Your task to perform on an android device: open app "Yahoo Mail" Image 0: 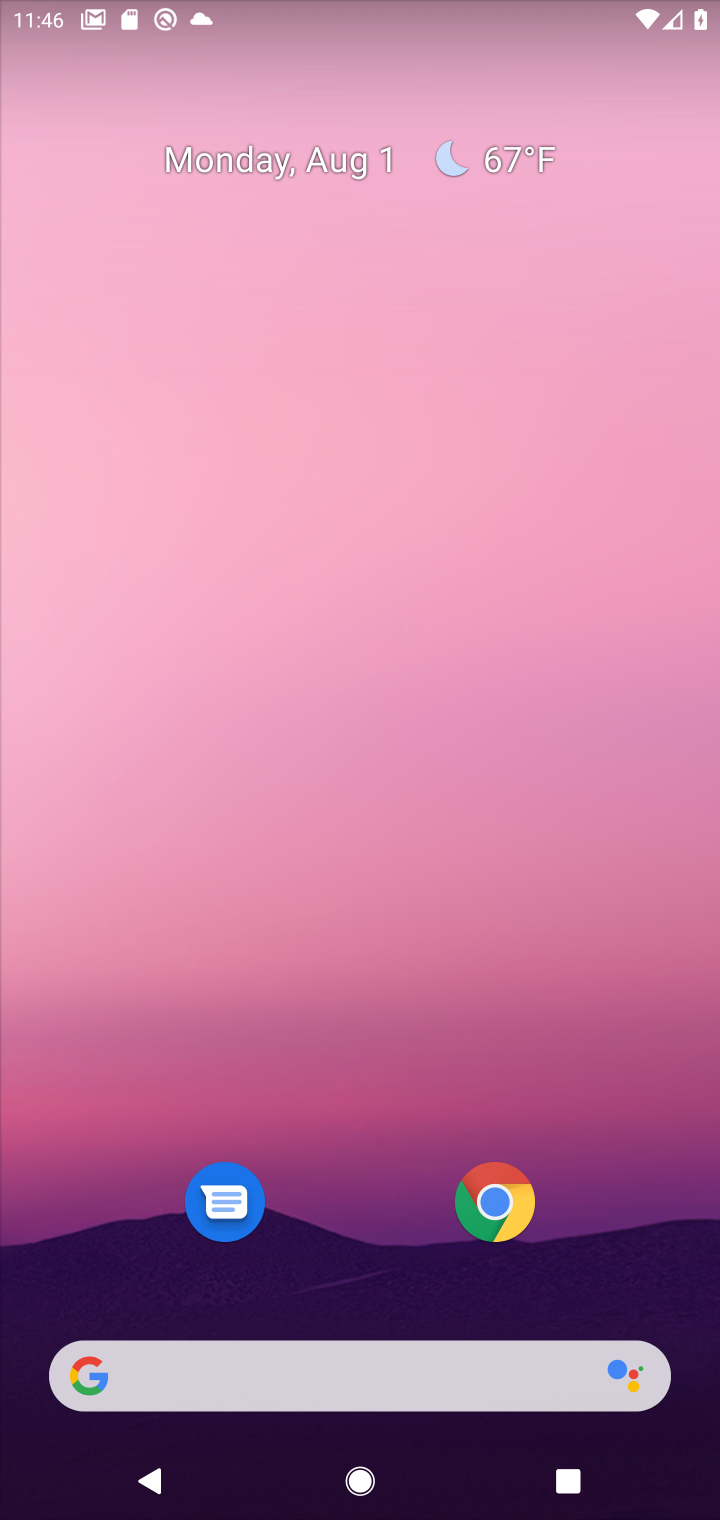
Step 0: drag from (312, 437) to (251, 88)
Your task to perform on an android device: open app "Yahoo Mail" Image 1: 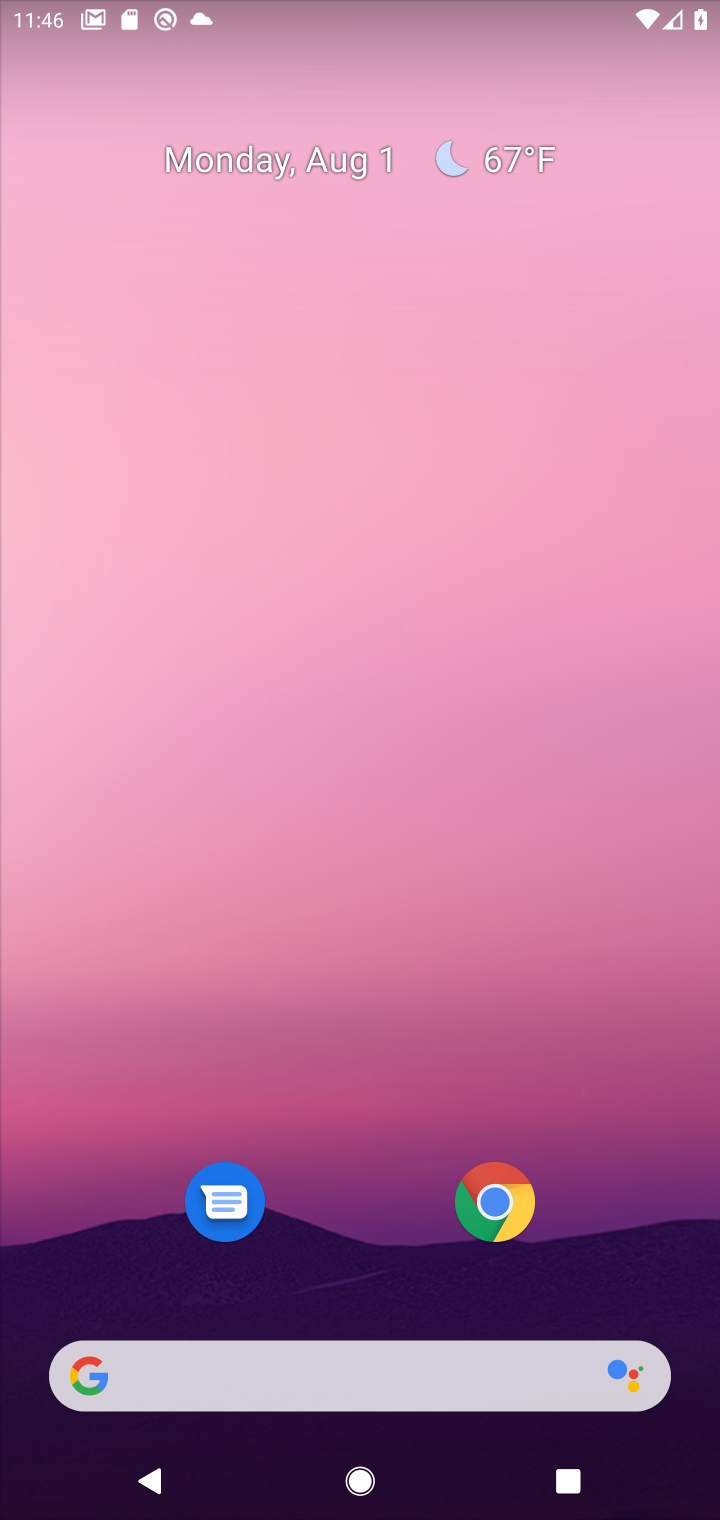
Step 1: drag from (304, 585) to (307, 281)
Your task to perform on an android device: open app "Yahoo Mail" Image 2: 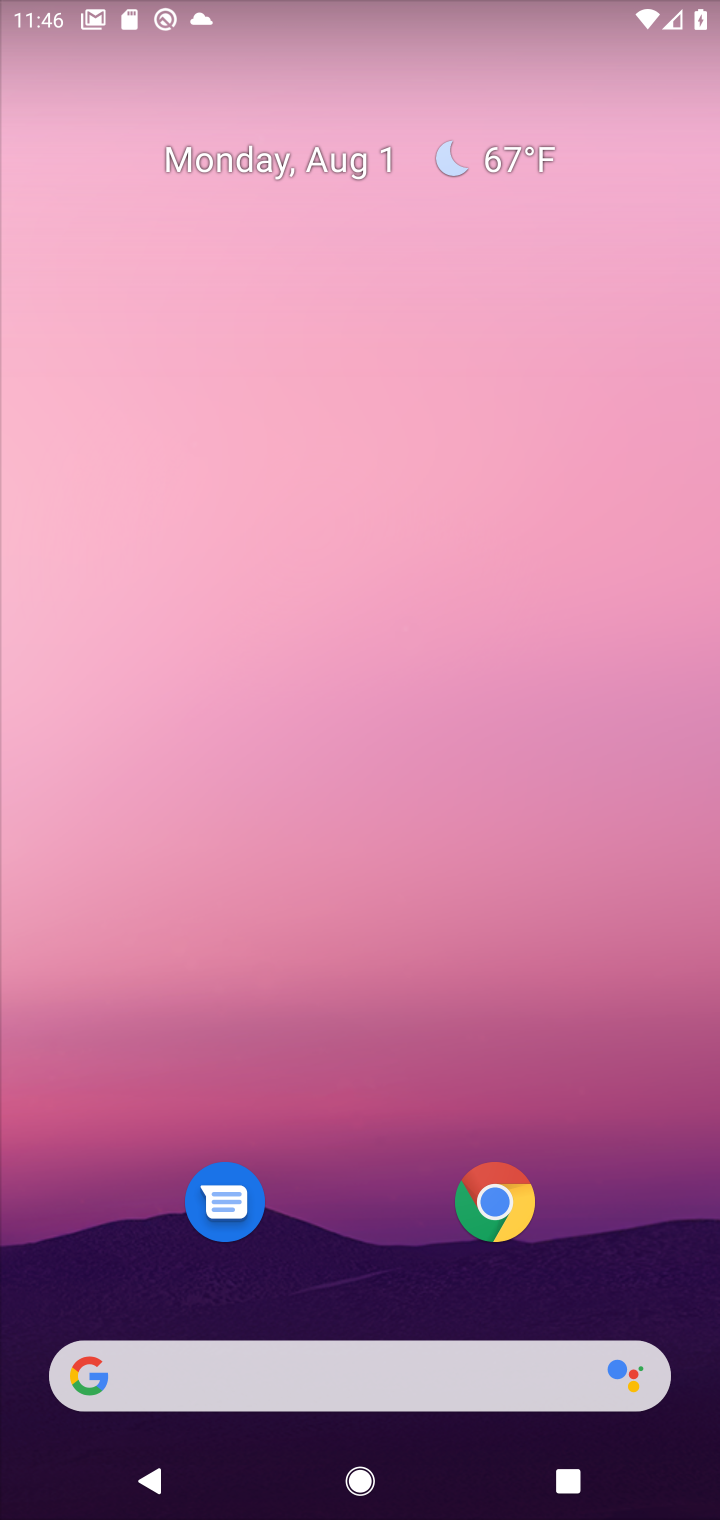
Step 2: drag from (315, 1224) to (342, 0)
Your task to perform on an android device: open app "Yahoo Mail" Image 3: 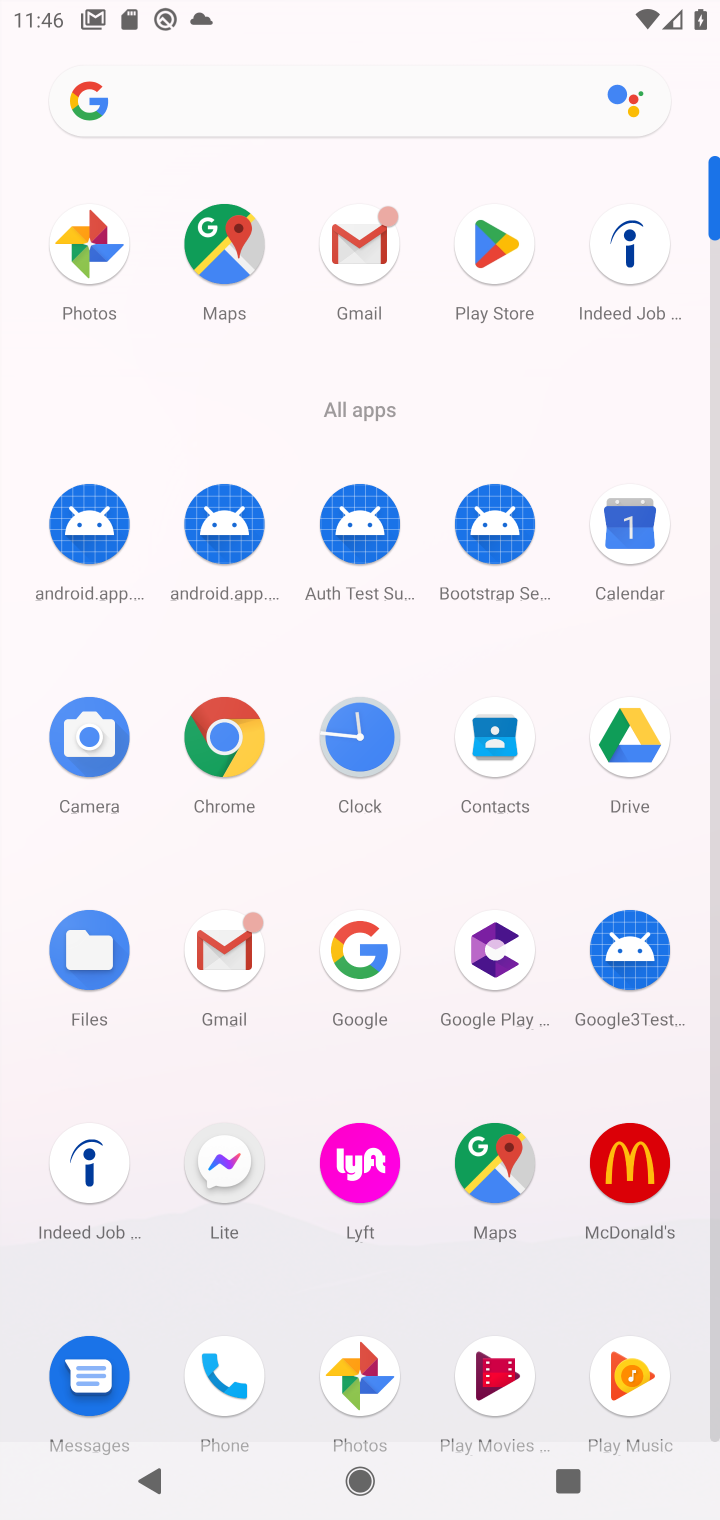
Step 3: drag from (476, 791) to (476, 722)
Your task to perform on an android device: open app "Yahoo Mail" Image 4: 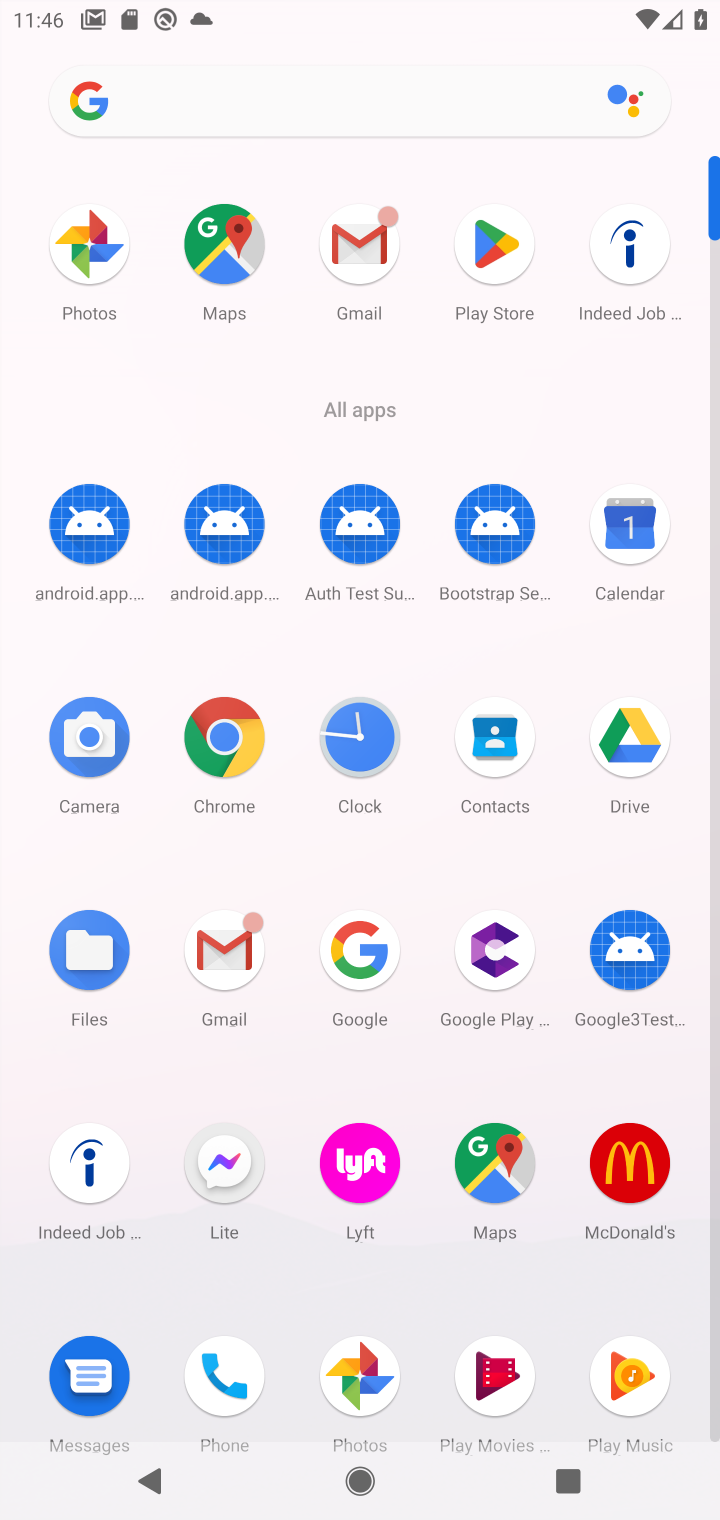
Step 4: drag from (387, 1152) to (488, 687)
Your task to perform on an android device: open app "Yahoo Mail" Image 5: 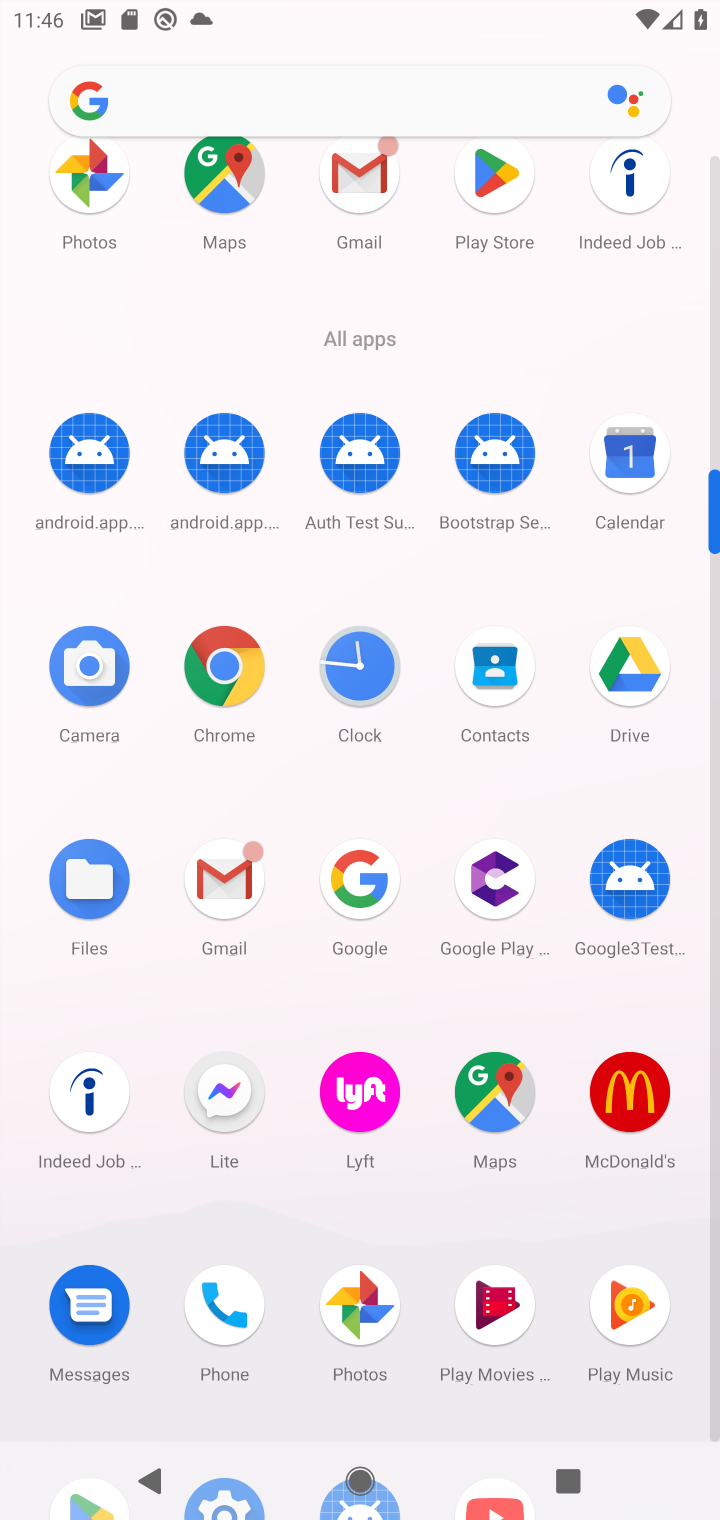
Step 5: drag from (453, 689) to (539, 364)
Your task to perform on an android device: open app "Yahoo Mail" Image 6: 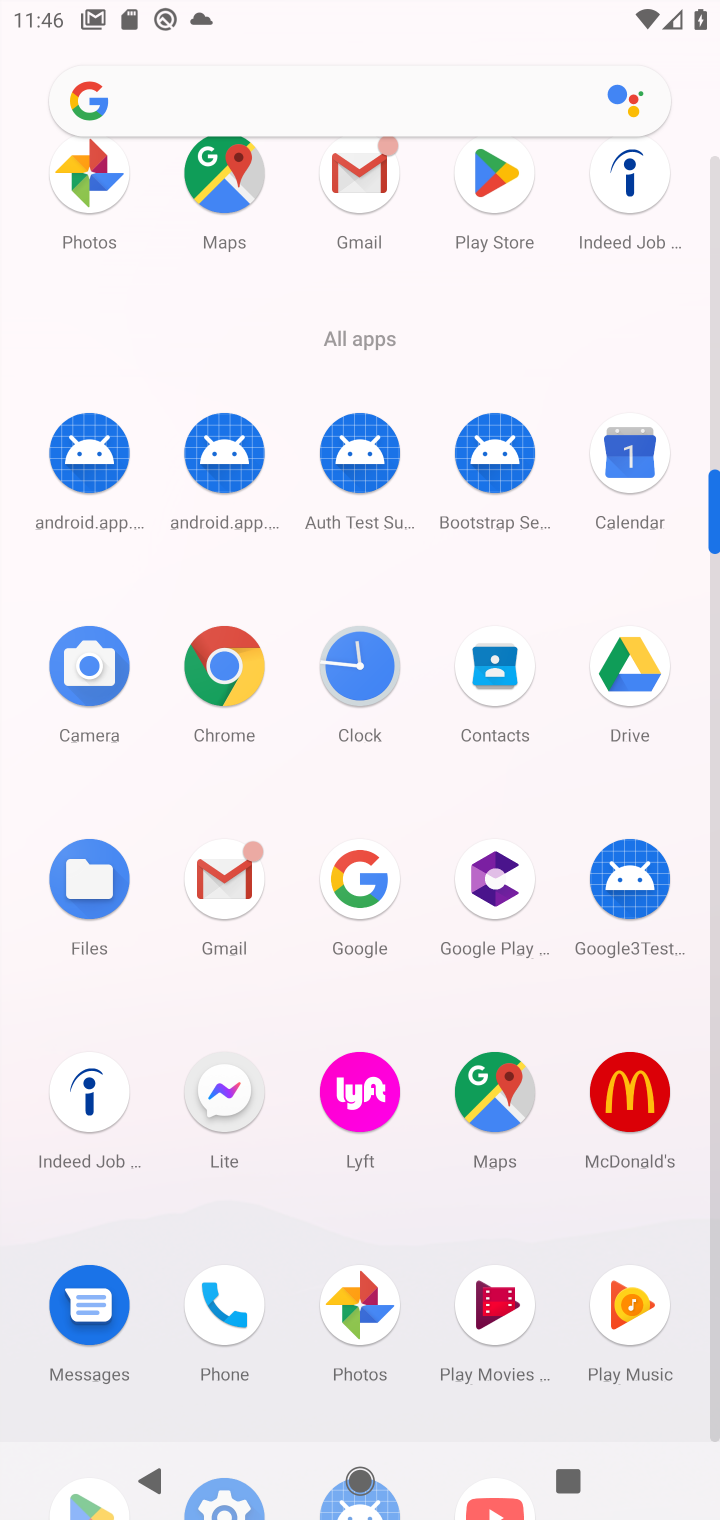
Step 6: drag from (256, 1134) to (356, 542)
Your task to perform on an android device: open app "Yahoo Mail" Image 7: 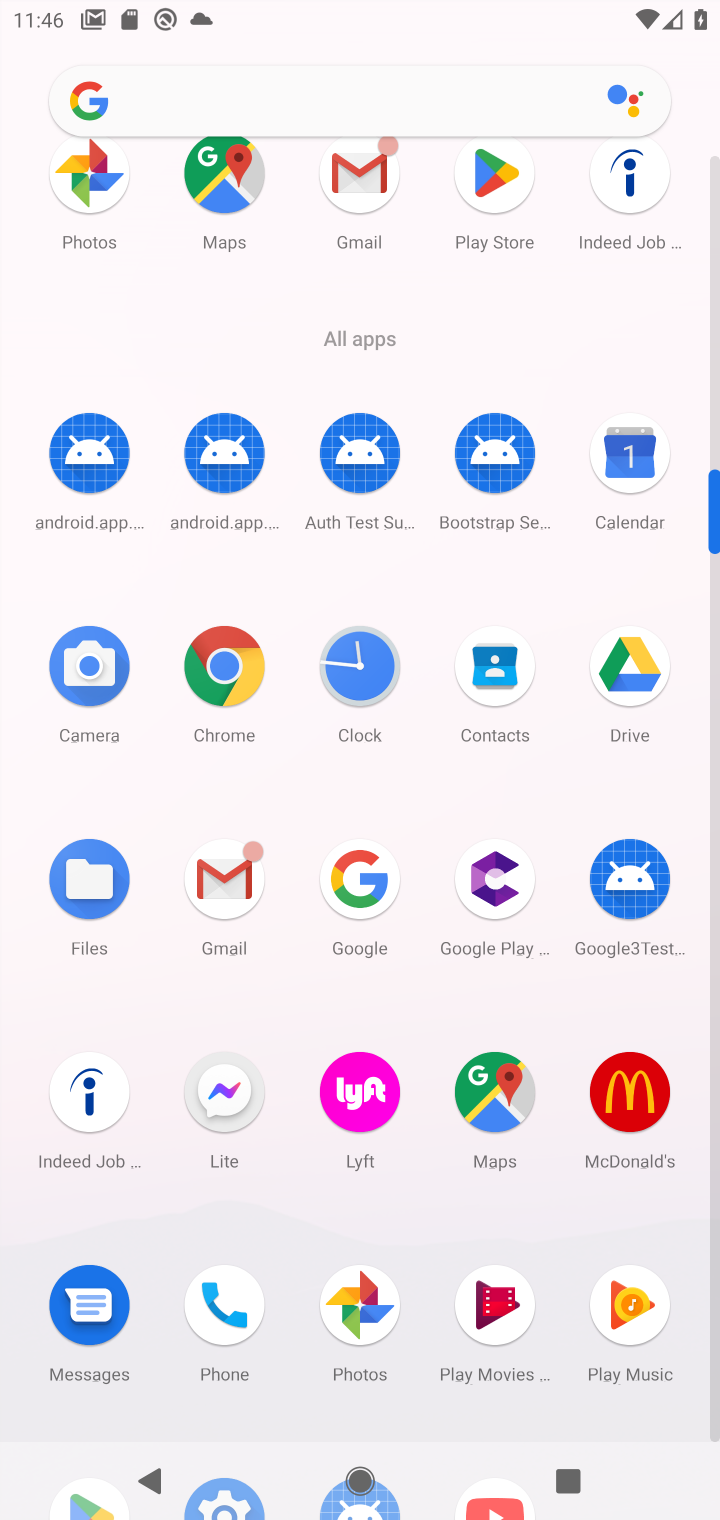
Step 7: drag from (317, 754) to (338, 606)
Your task to perform on an android device: open app "Yahoo Mail" Image 8: 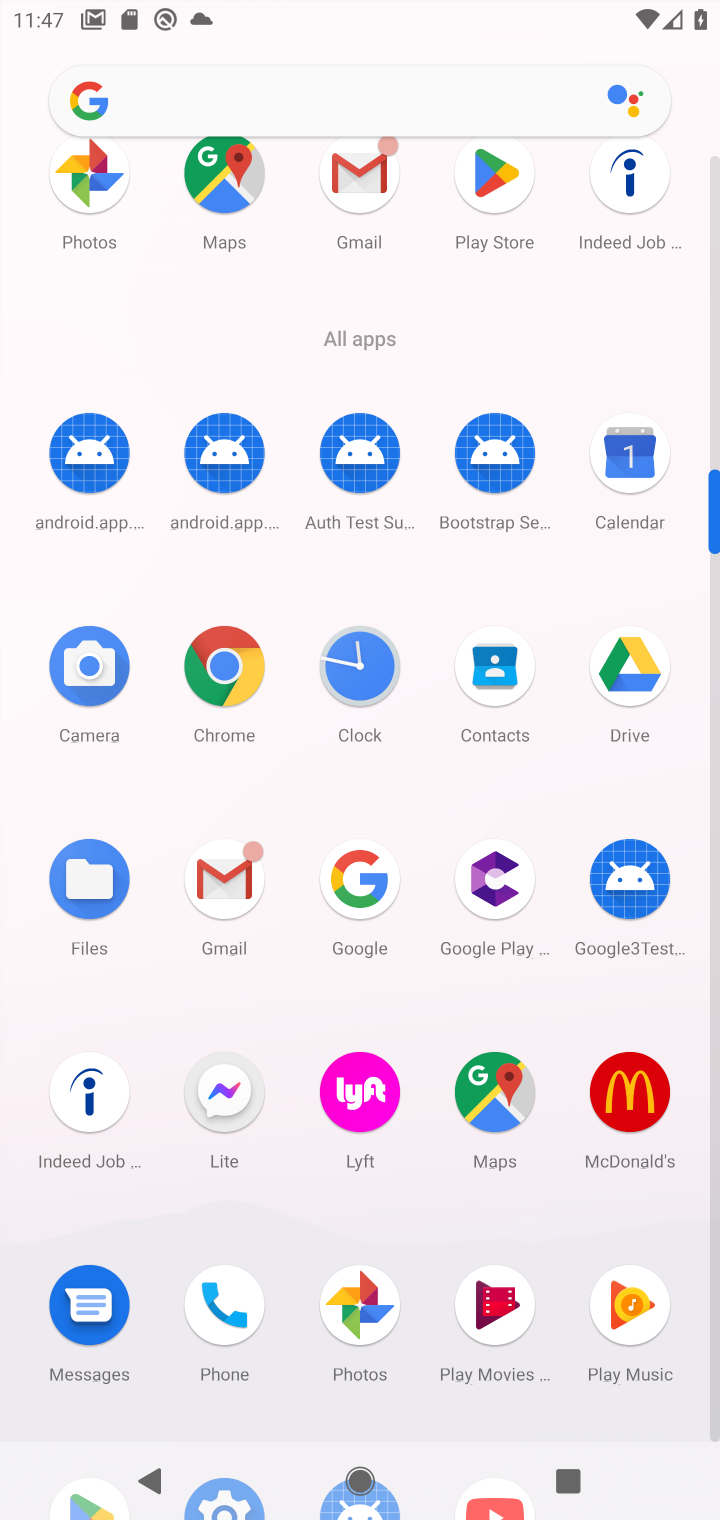
Step 8: drag from (266, 1085) to (243, 408)
Your task to perform on an android device: open app "Yahoo Mail" Image 9: 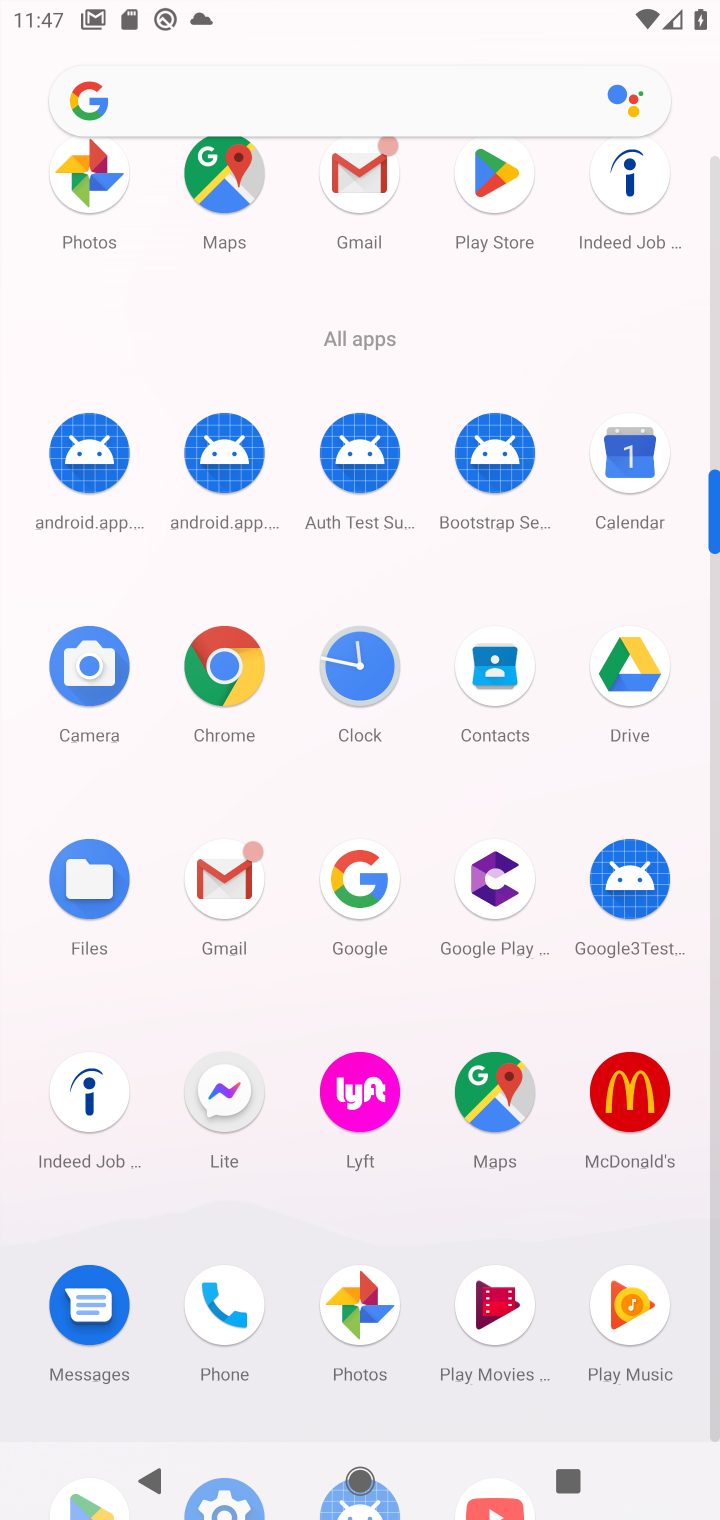
Step 9: drag from (396, 1387) to (408, 578)
Your task to perform on an android device: open app "Yahoo Mail" Image 10: 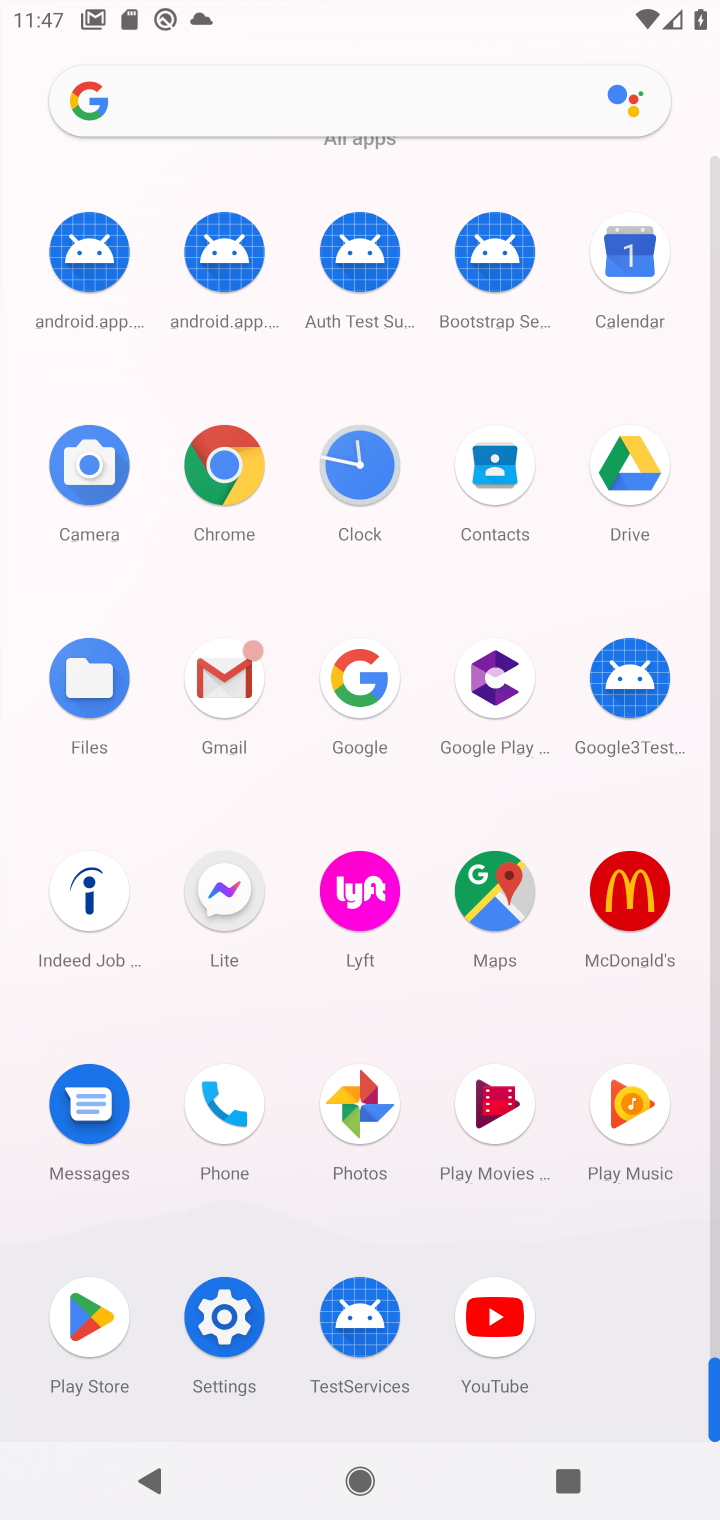
Step 10: click (78, 1337)
Your task to perform on an android device: open app "Yahoo Mail" Image 11: 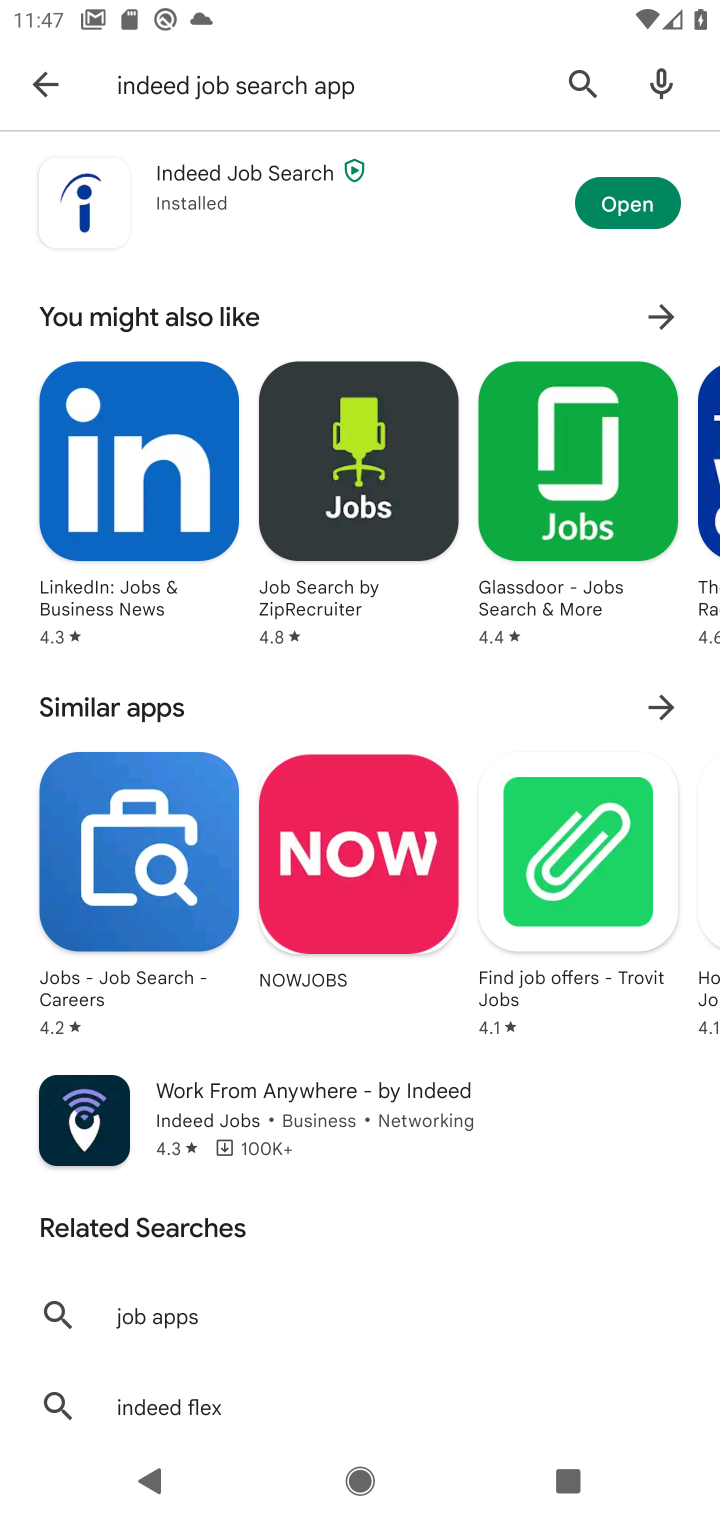
Step 11: click (50, 90)
Your task to perform on an android device: open app "Yahoo Mail" Image 12: 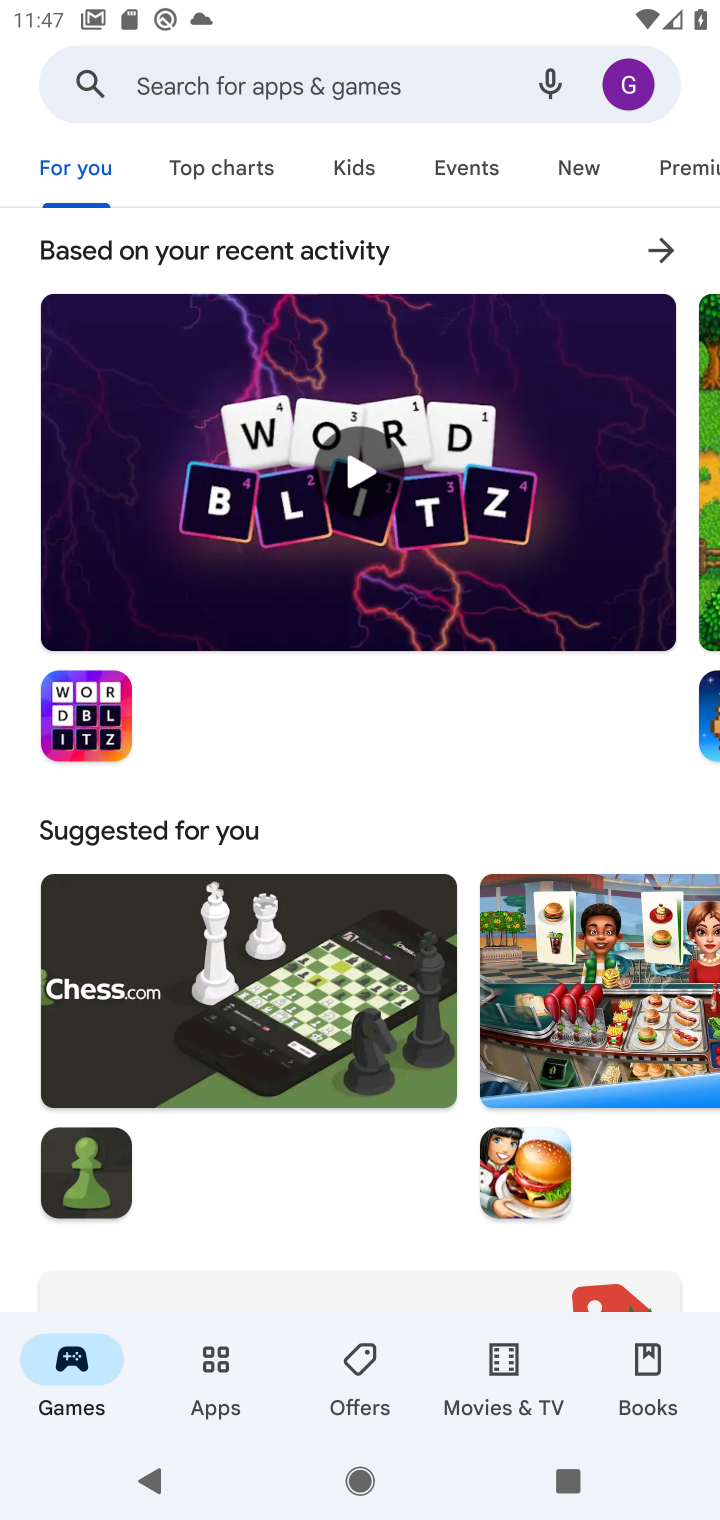
Step 12: click (335, 74)
Your task to perform on an android device: open app "Yahoo Mail" Image 13: 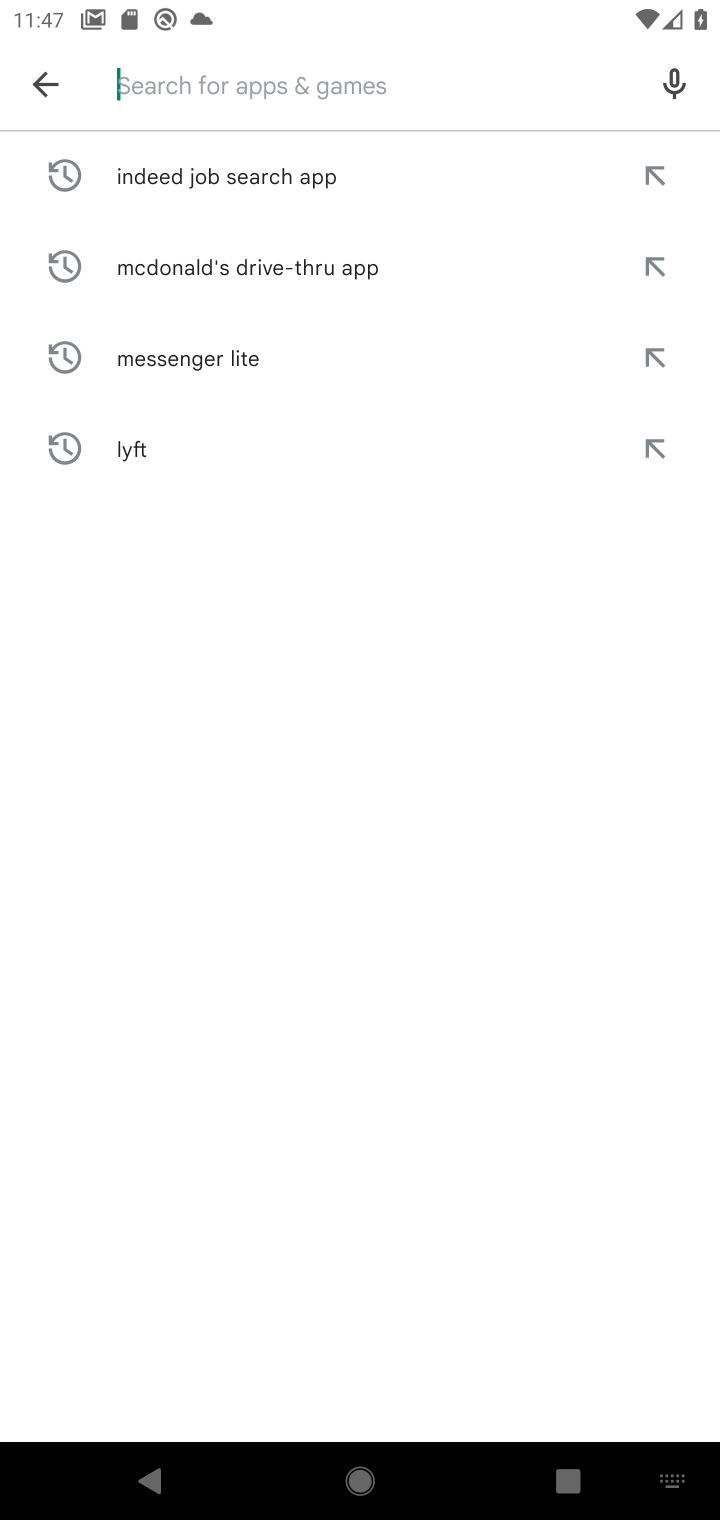
Step 13: type "Yahoo Mail"
Your task to perform on an android device: open app "Yahoo Mail" Image 14: 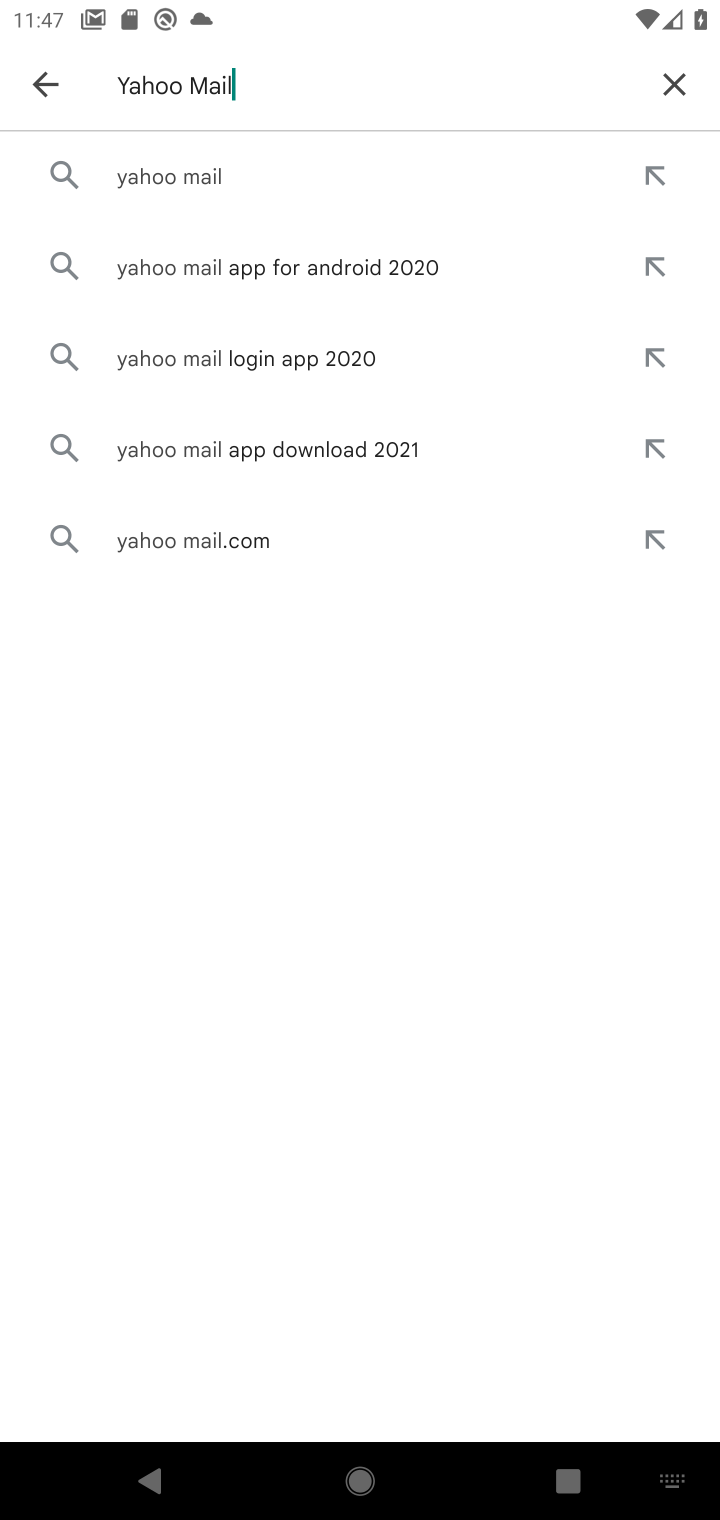
Step 14: click (152, 183)
Your task to perform on an android device: open app "Yahoo Mail" Image 15: 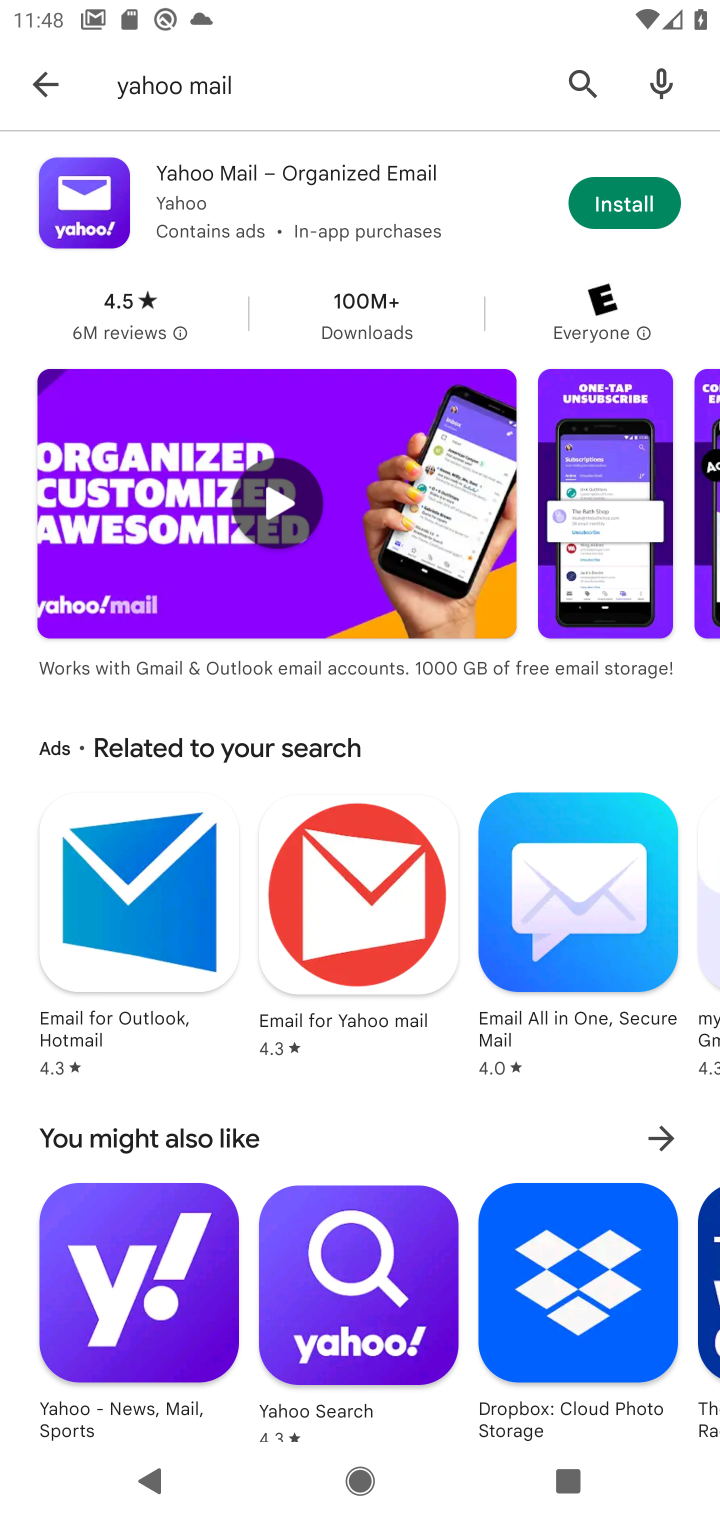
Step 15: click (639, 196)
Your task to perform on an android device: open app "Yahoo Mail" Image 16: 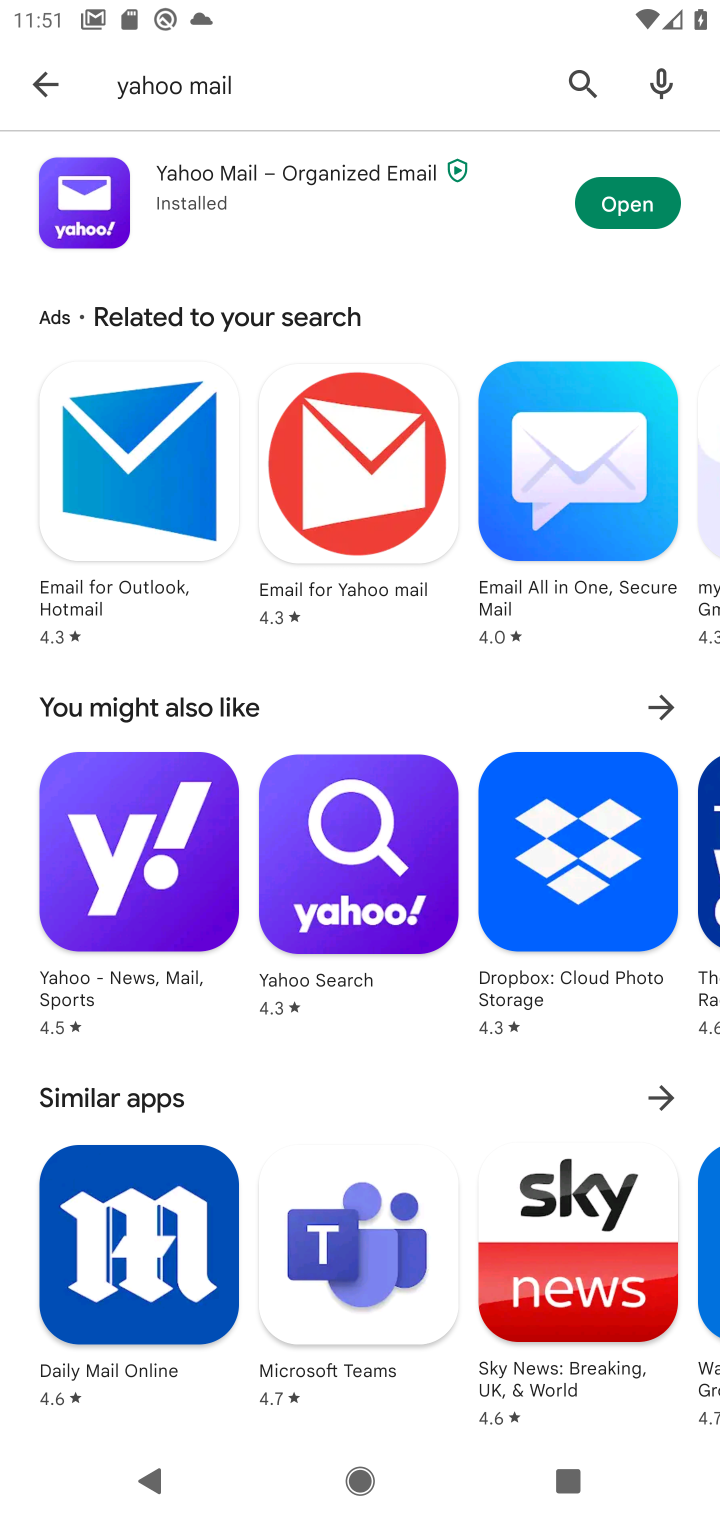
Step 16: click (615, 216)
Your task to perform on an android device: open app "Yahoo Mail" Image 17: 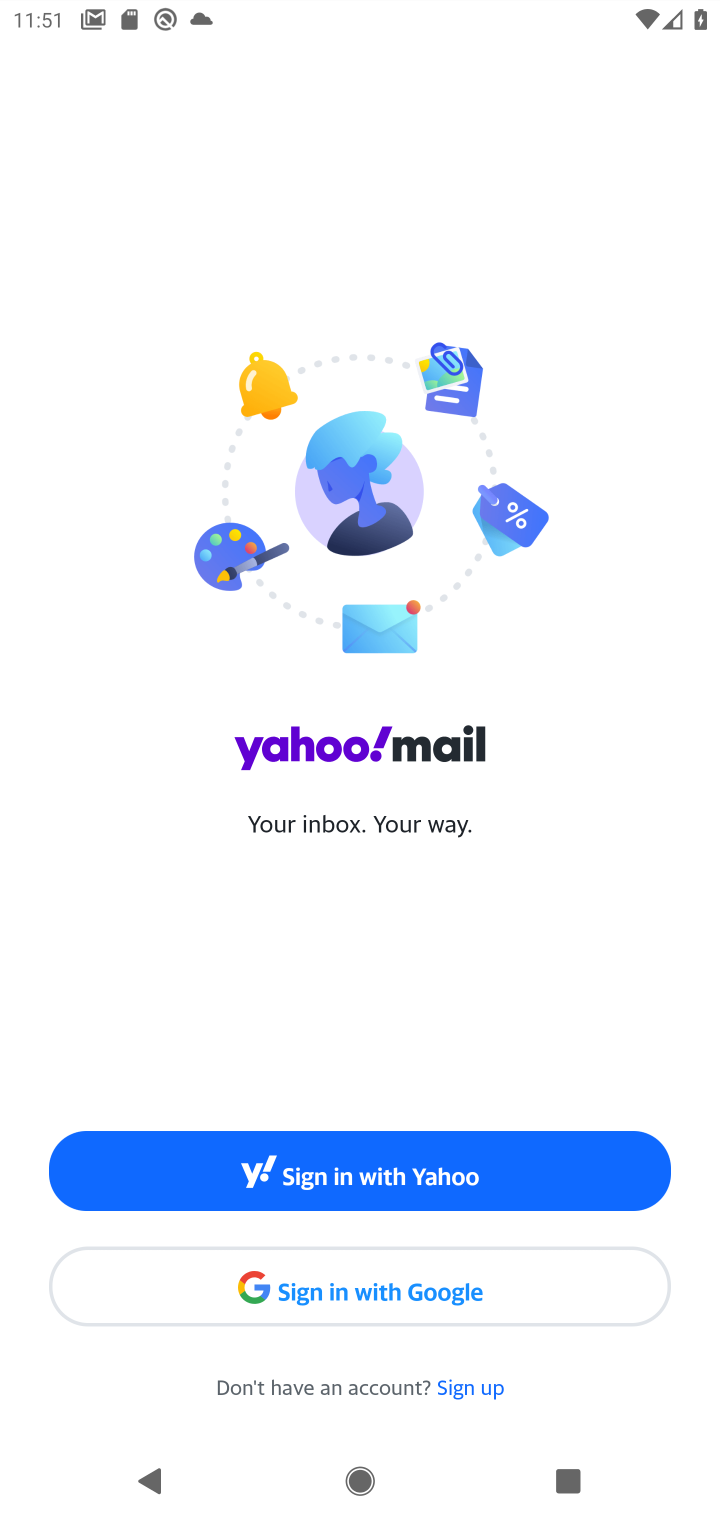
Step 17: task complete